Your task to perform on an android device: Open settings Image 0: 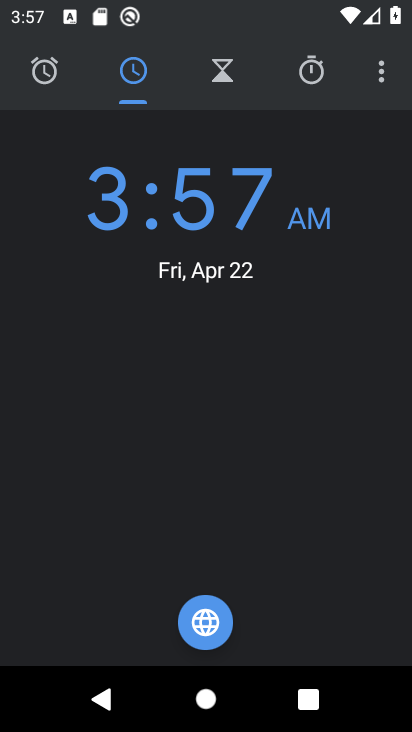
Step 0: press home button
Your task to perform on an android device: Open settings Image 1: 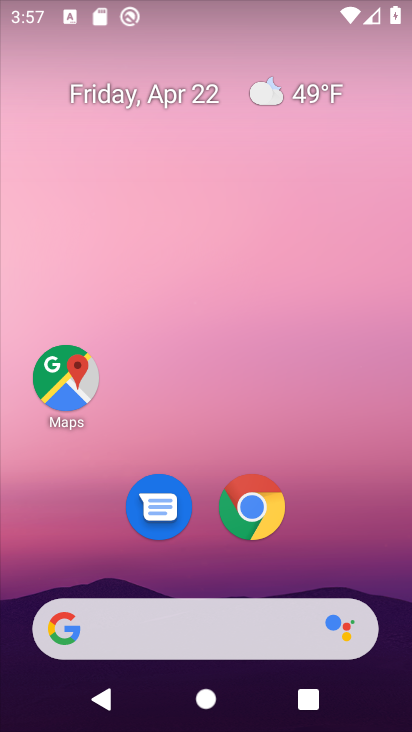
Step 1: drag from (402, 621) to (319, 128)
Your task to perform on an android device: Open settings Image 2: 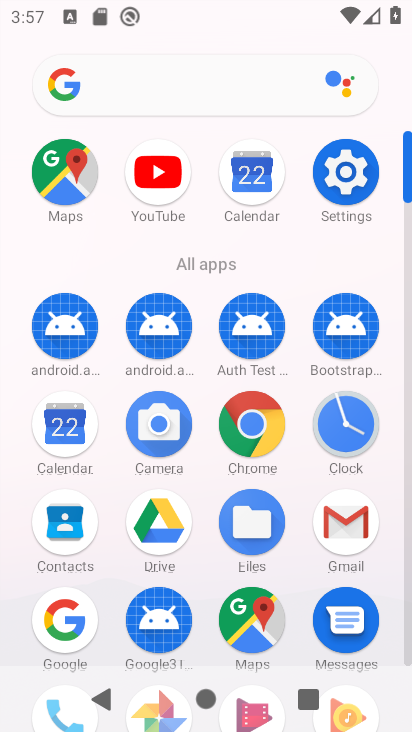
Step 2: click (404, 645)
Your task to perform on an android device: Open settings Image 3: 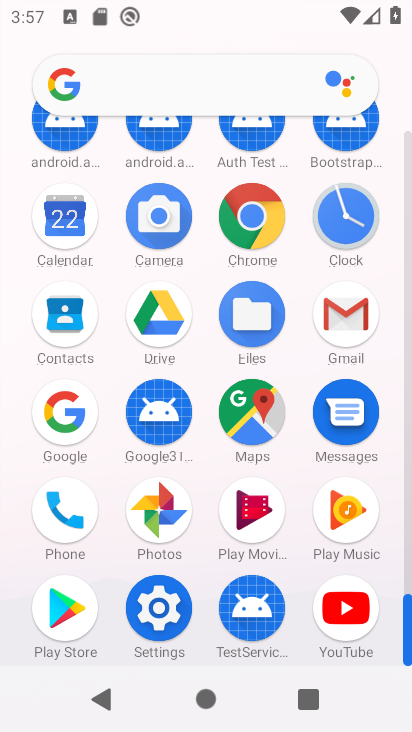
Step 3: click (157, 607)
Your task to perform on an android device: Open settings Image 4: 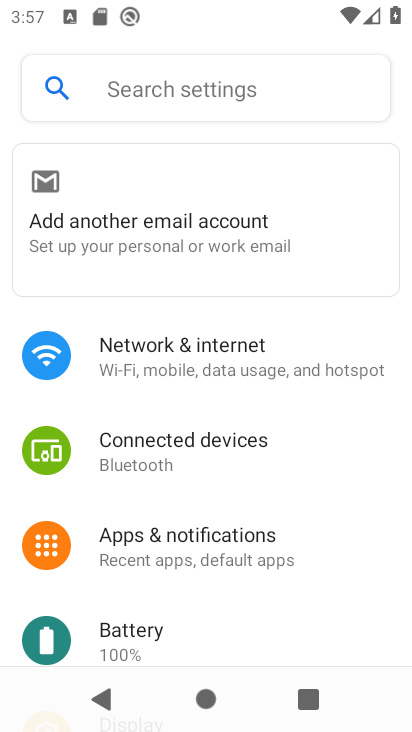
Step 4: task complete